Your task to perform on an android device: remove spam from my inbox in the gmail app Image 0: 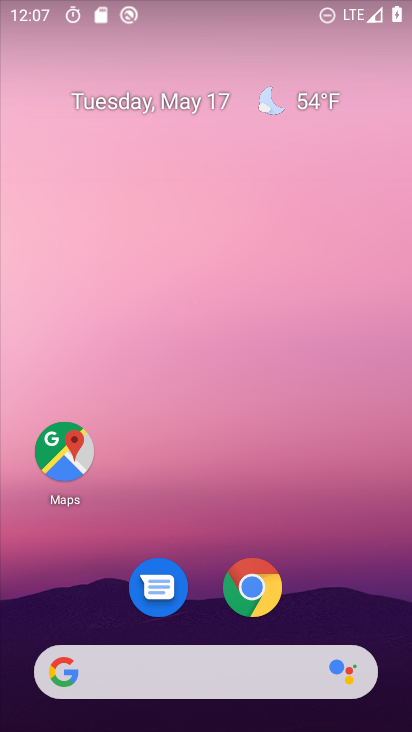
Step 0: drag from (230, 541) to (213, 132)
Your task to perform on an android device: remove spam from my inbox in the gmail app Image 1: 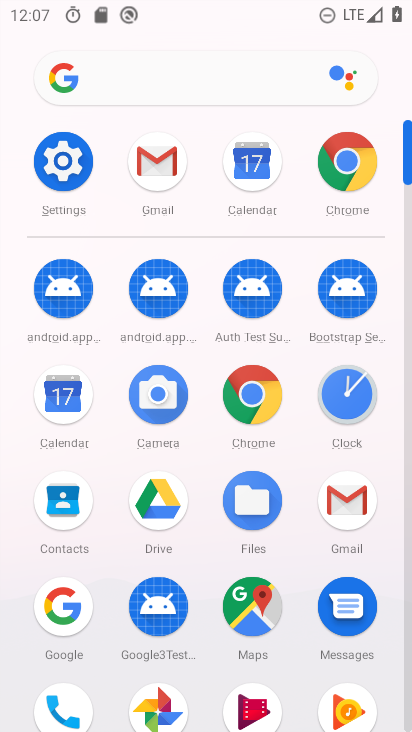
Step 1: click (191, 70)
Your task to perform on an android device: remove spam from my inbox in the gmail app Image 2: 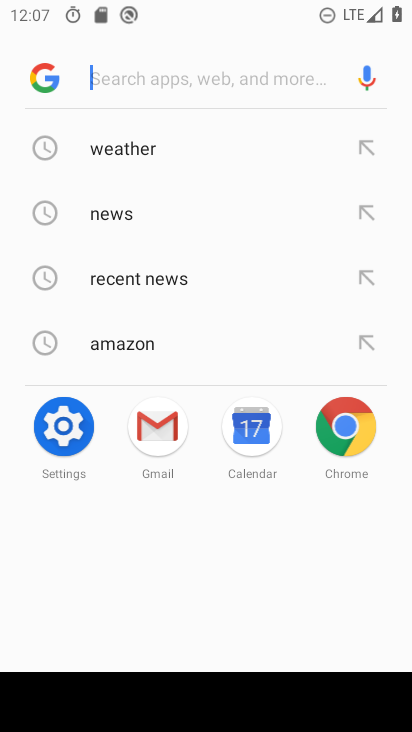
Step 2: press back button
Your task to perform on an android device: remove spam from my inbox in the gmail app Image 3: 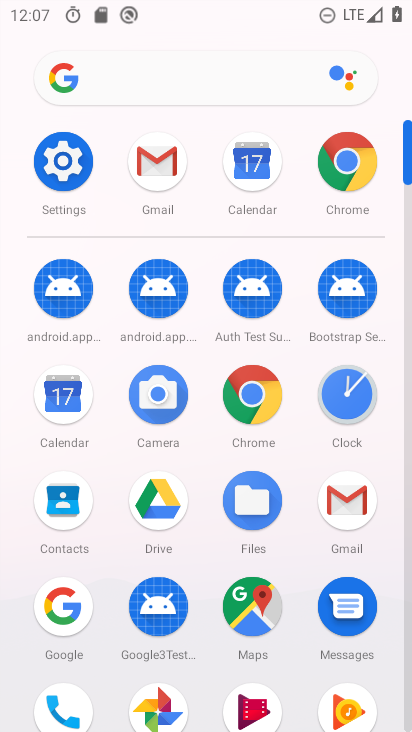
Step 3: click (356, 497)
Your task to perform on an android device: remove spam from my inbox in the gmail app Image 4: 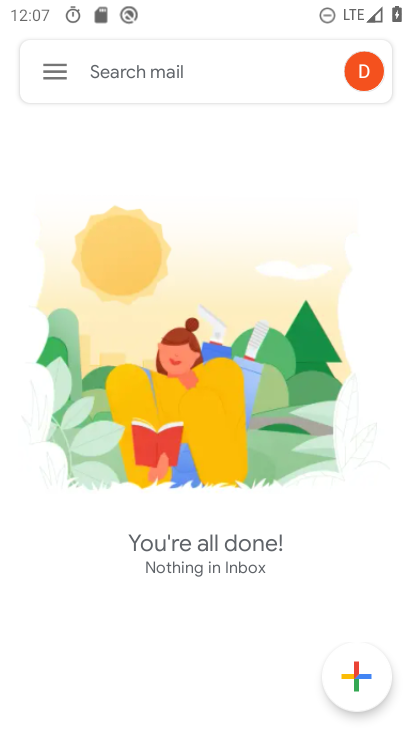
Step 4: click (34, 67)
Your task to perform on an android device: remove spam from my inbox in the gmail app Image 5: 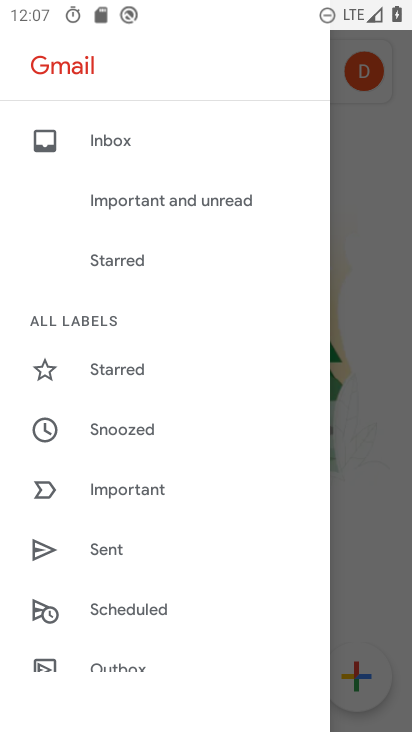
Step 5: drag from (144, 577) to (161, 116)
Your task to perform on an android device: remove spam from my inbox in the gmail app Image 6: 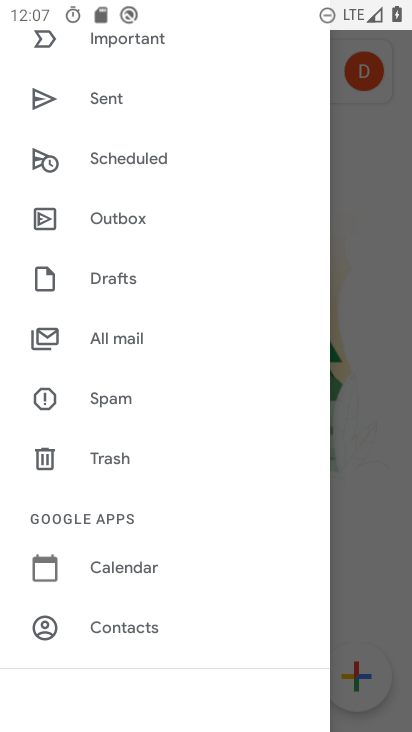
Step 6: click (121, 388)
Your task to perform on an android device: remove spam from my inbox in the gmail app Image 7: 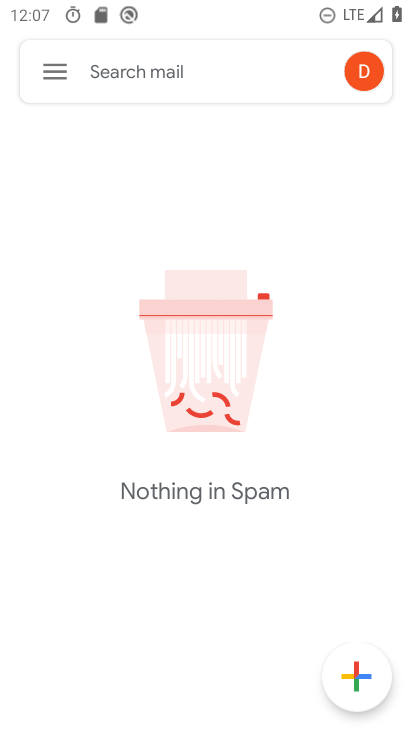
Step 7: task complete